Your task to perform on an android device: star an email in the gmail app Image 0: 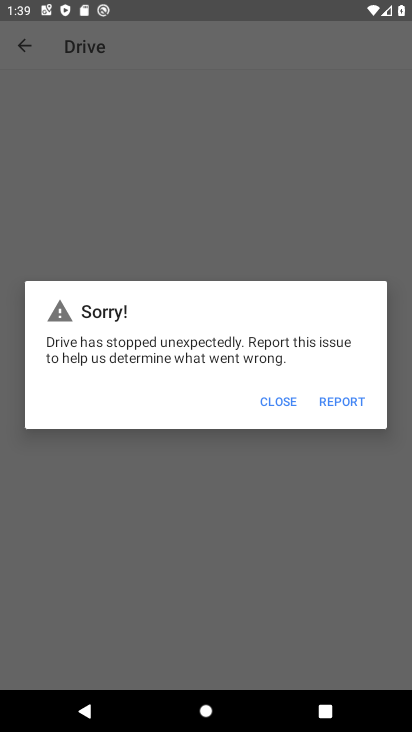
Step 0: press home button
Your task to perform on an android device: star an email in the gmail app Image 1: 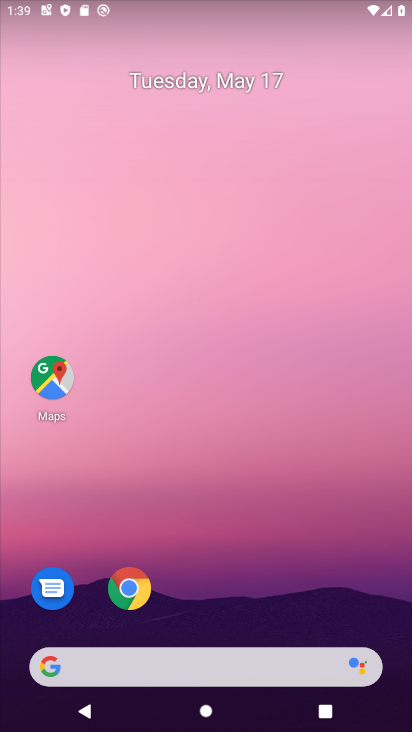
Step 1: drag from (225, 587) to (82, 169)
Your task to perform on an android device: star an email in the gmail app Image 2: 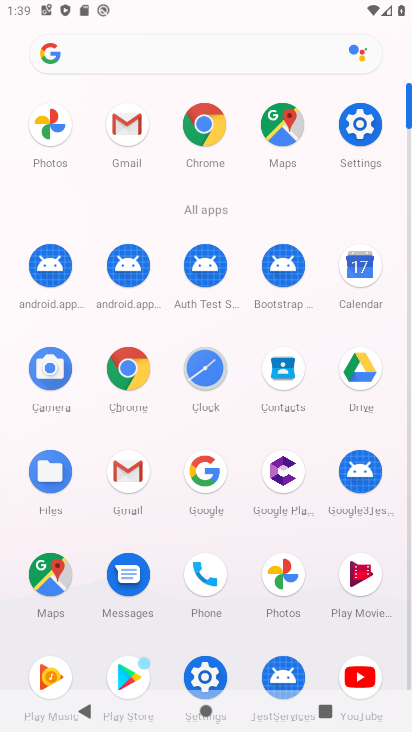
Step 2: click (109, 136)
Your task to perform on an android device: star an email in the gmail app Image 3: 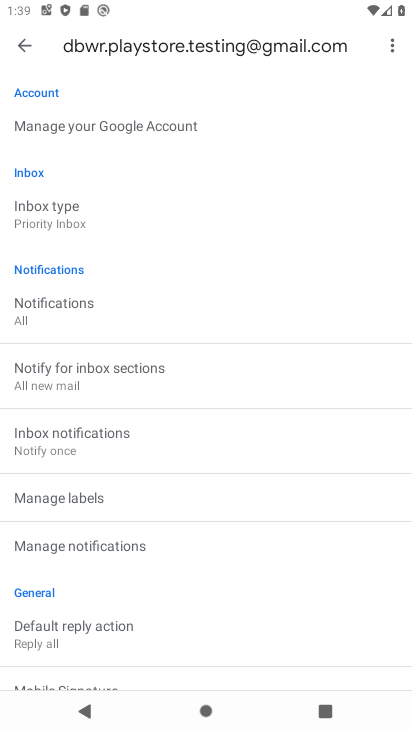
Step 3: press back button
Your task to perform on an android device: star an email in the gmail app Image 4: 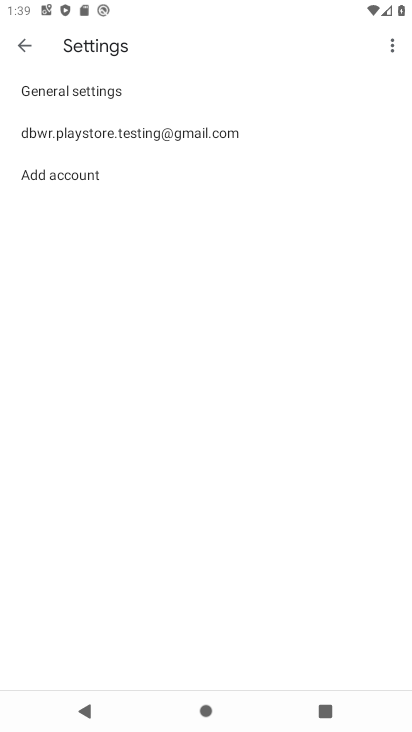
Step 4: press back button
Your task to perform on an android device: star an email in the gmail app Image 5: 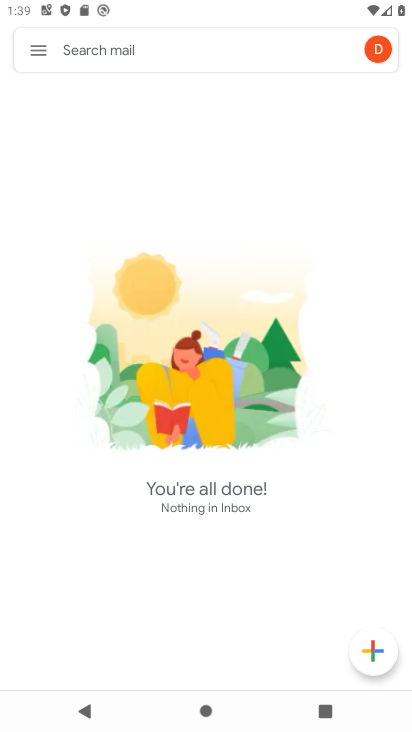
Step 5: click (39, 55)
Your task to perform on an android device: star an email in the gmail app Image 6: 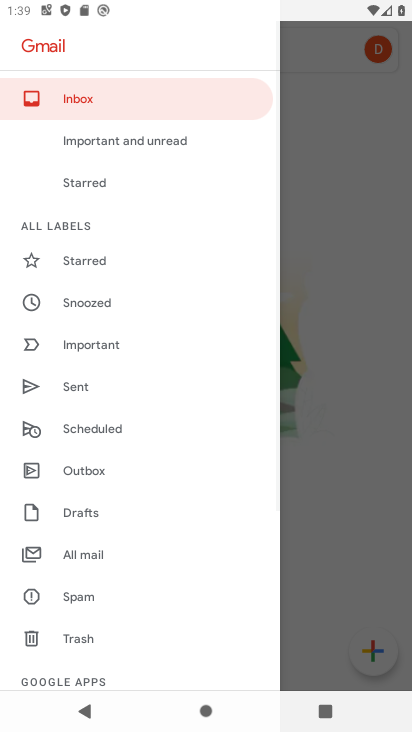
Step 6: drag from (81, 579) to (91, 486)
Your task to perform on an android device: star an email in the gmail app Image 7: 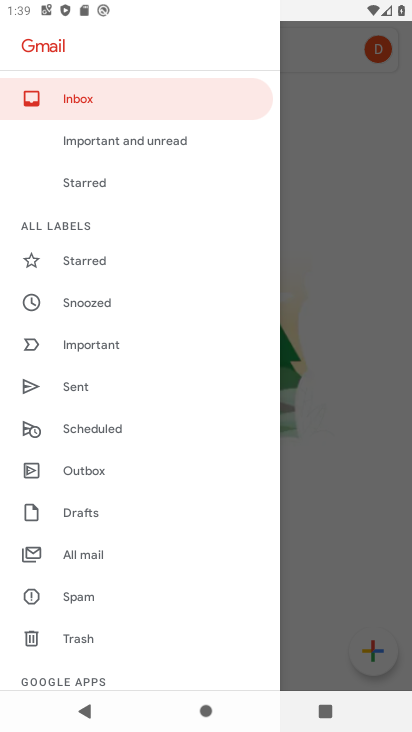
Step 7: click (317, 270)
Your task to perform on an android device: star an email in the gmail app Image 8: 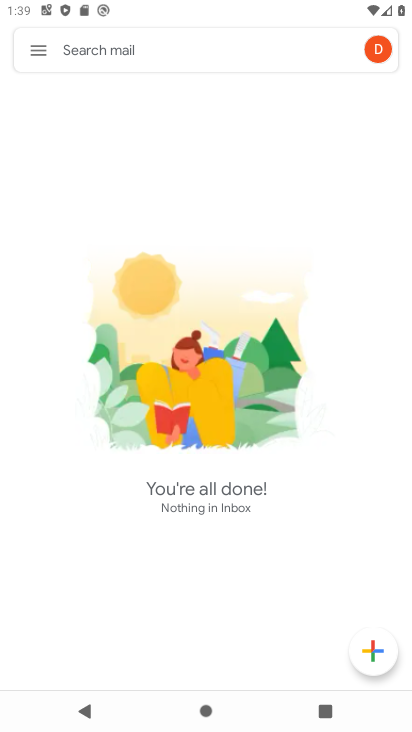
Step 8: task complete